Your task to perform on an android device: turn on the 12-hour format for clock Image 0: 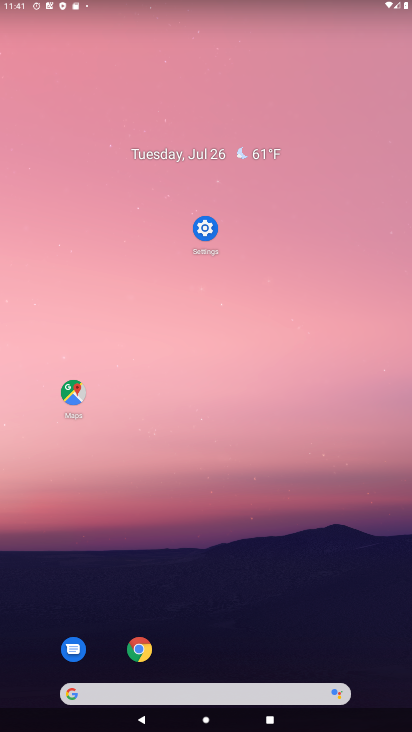
Step 0: drag from (221, 567) to (172, 150)
Your task to perform on an android device: turn on the 12-hour format for clock Image 1: 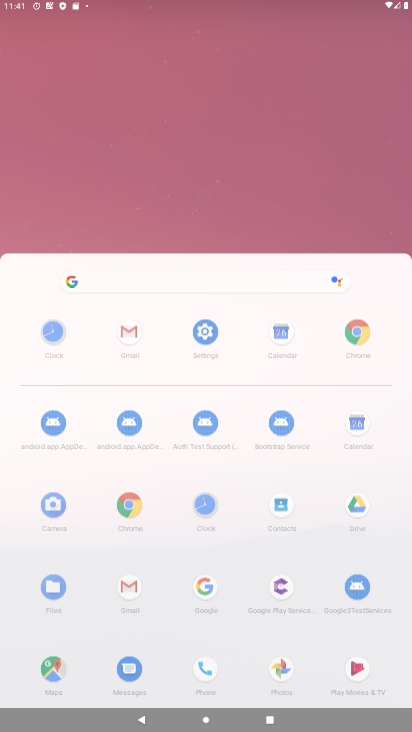
Step 1: drag from (150, 537) to (134, 192)
Your task to perform on an android device: turn on the 12-hour format for clock Image 2: 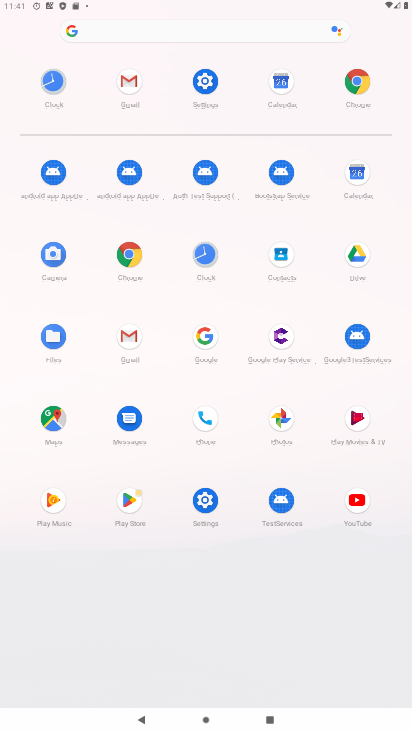
Step 2: click (206, 252)
Your task to perform on an android device: turn on the 12-hour format for clock Image 3: 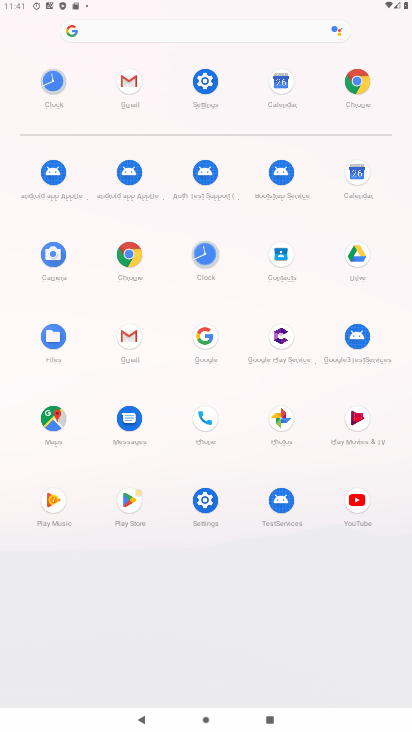
Step 3: click (202, 248)
Your task to perform on an android device: turn on the 12-hour format for clock Image 4: 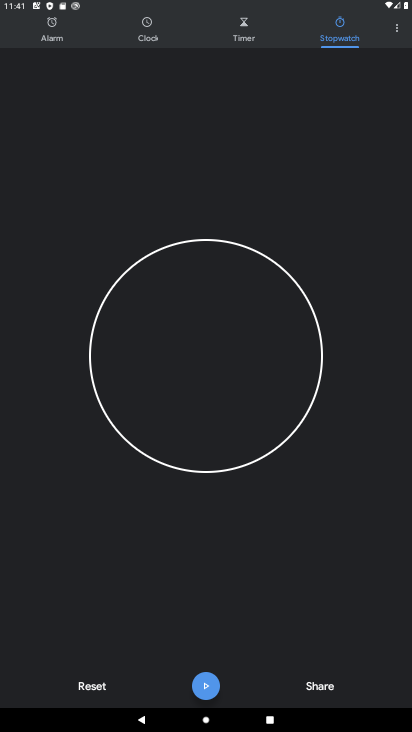
Step 4: drag from (391, 30) to (323, 53)
Your task to perform on an android device: turn on the 12-hour format for clock Image 5: 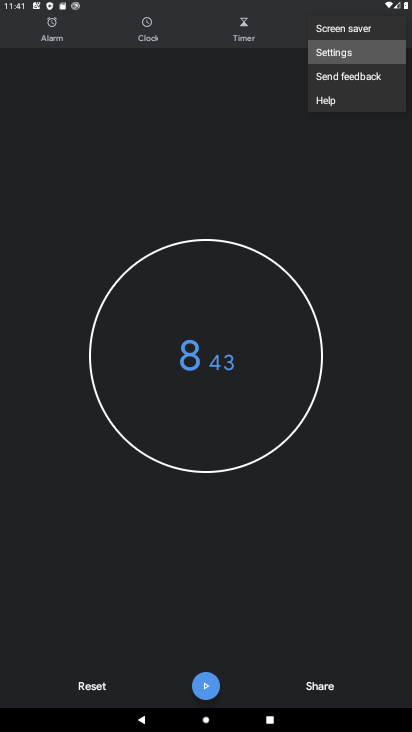
Step 5: click (324, 51)
Your task to perform on an android device: turn on the 12-hour format for clock Image 6: 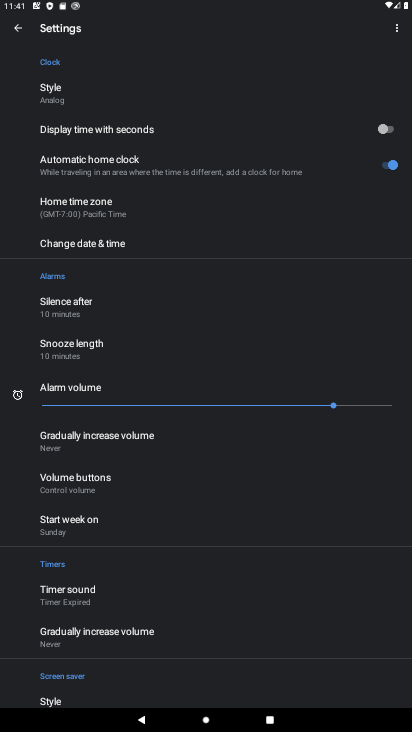
Step 6: drag from (151, 602) to (174, 151)
Your task to perform on an android device: turn on the 12-hour format for clock Image 7: 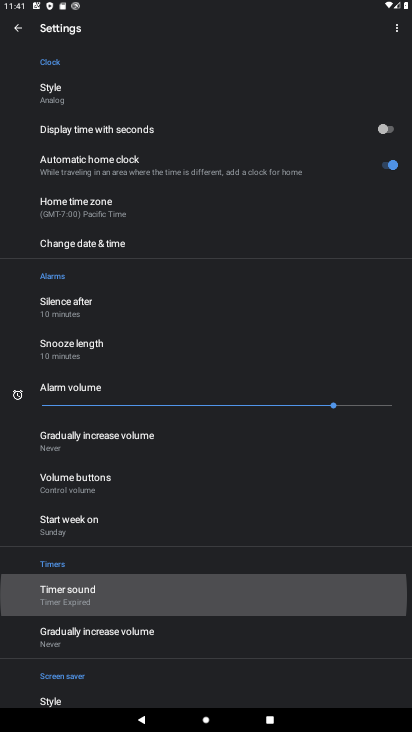
Step 7: drag from (204, 725) to (207, 226)
Your task to perform on an android device: turn on the 12-hour format for clock Image 8: 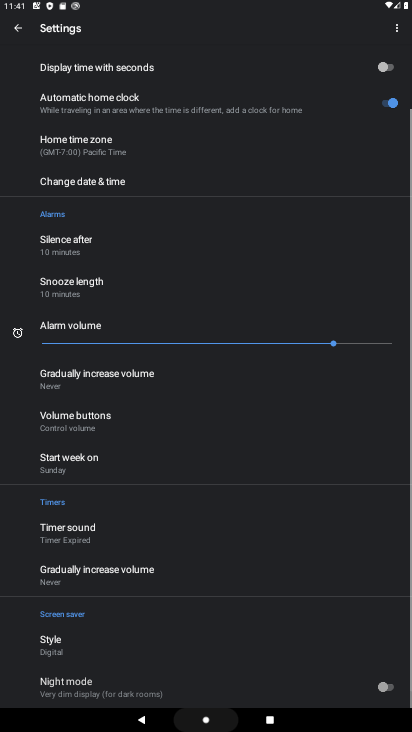
Step 8: drag from (205, 541) to (217, 201)
Your task to perform on an android device: turn on the 12-hour format for clock Image 9: 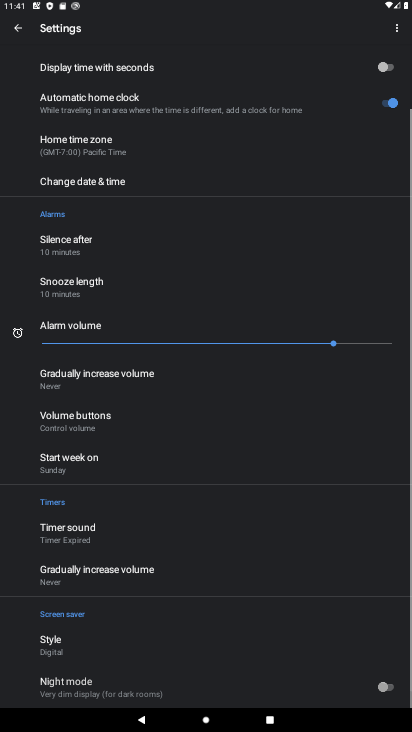
Step 9: drag from (266, 423) to (274, 269)
Your task to perform on an android device: turn on the 12-hour format for clock Image 10: 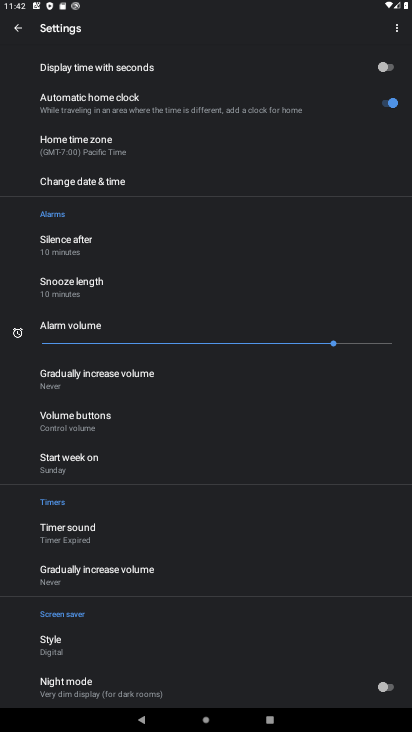
Step 10: press back button
Your task to perform on an android device: turn on the 12-hour format for clock Image 11: 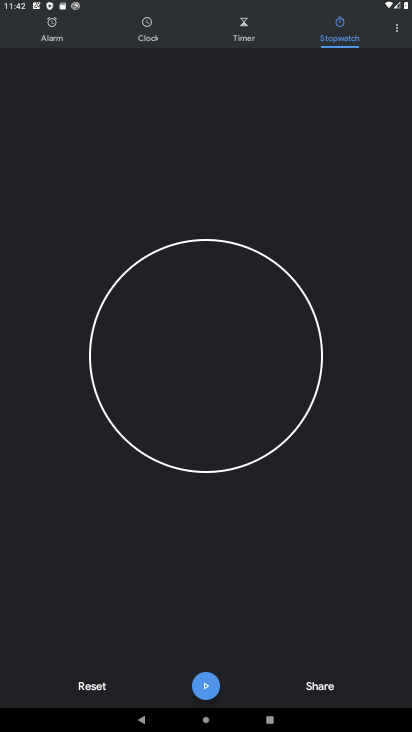
Step 11: click (409, 27)
Your task to perform on an android device: turn on the 12-hour format for clock Image 12: 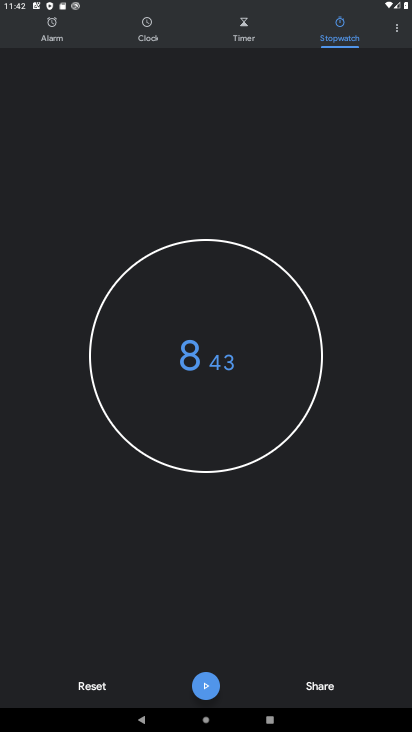
Step 12: click (397, 32)
Your task to perform on an android device: turn on the 12-hour format for clock Image 13: 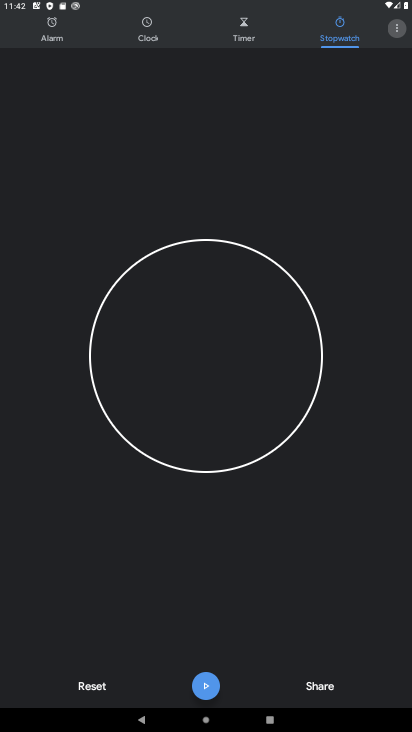
Step 13: click (398, 27)
Your task to perform on an android device: turn on the 12-hour format for clock Image 14: 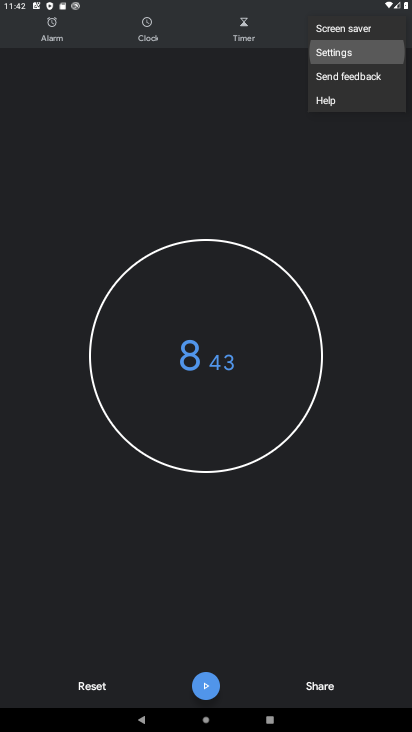
Step 14: click (398, 31)
Your task to perform on an android device: turn on the 12-hour format for clock Image 15: 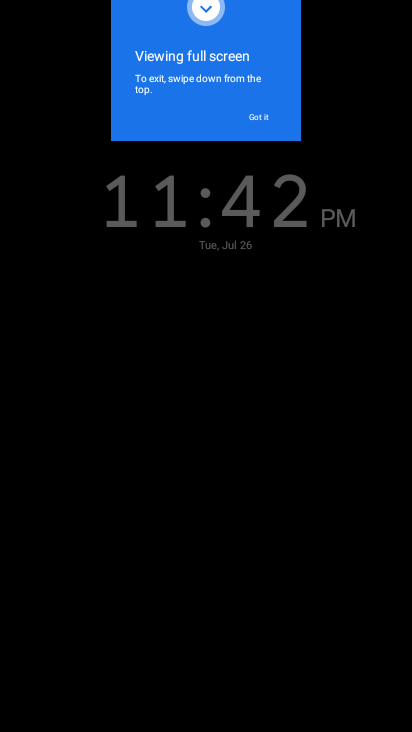
Step 15: press back button
Your task to perform on an android device: turn on the 12-hour format for clock Image 16: 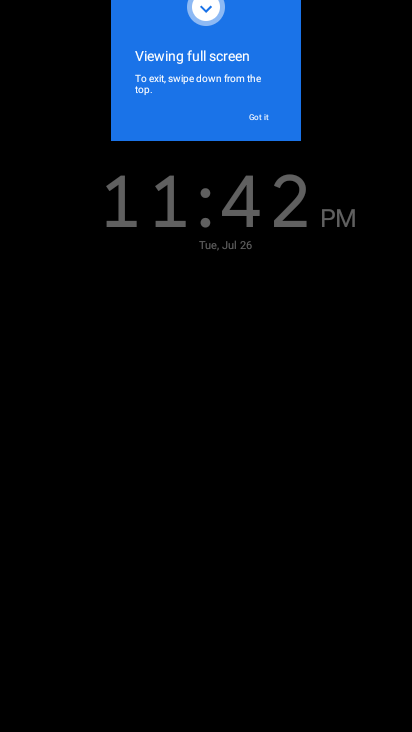
Step 16: press back button
Your task to perform on an android device: turn on the 12-hour format for clock Image 17: 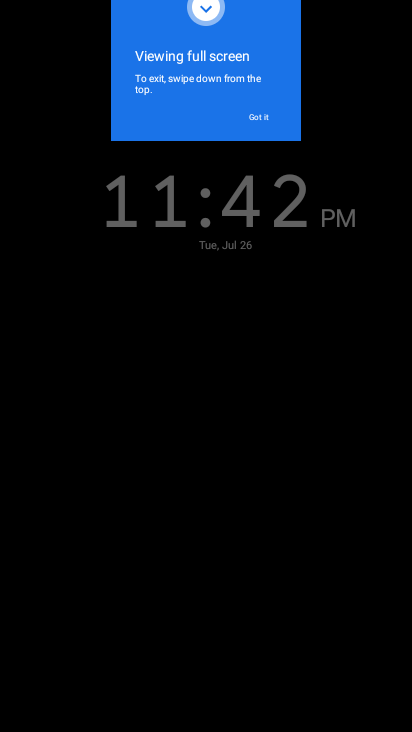
Step 17: click (263, 123)
Your task to perform on an android device: turn on the 12-hour format for clock Image 18: 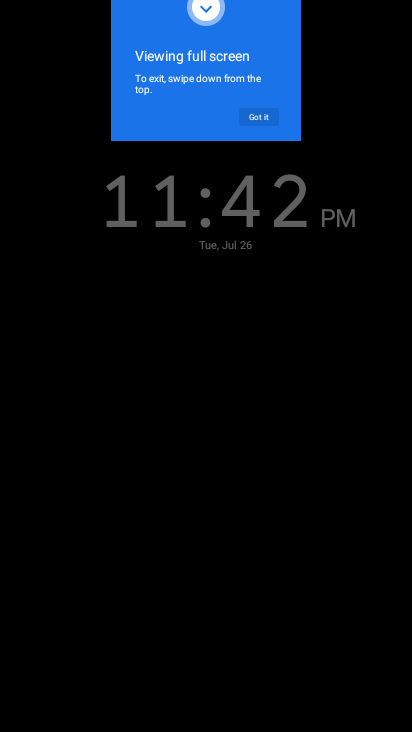
Step 18: click (264, 131)
Your task to perform on an android device: turn on the 12-hour format for clock Image 19: 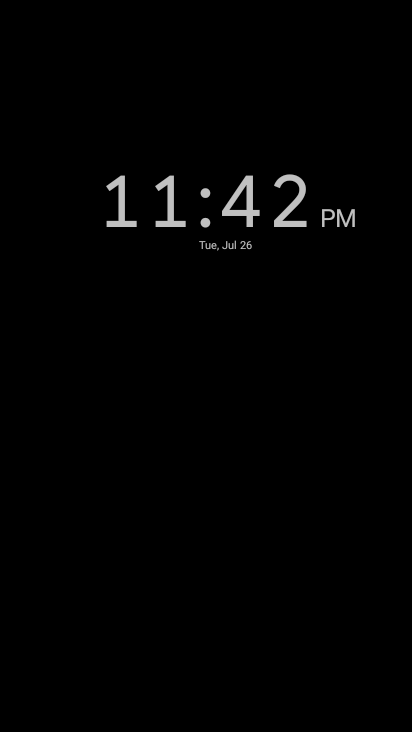
Step 19: click (263, 132)
Your task to perform on an android device: turn on the 12-hour format for clock Image 20: 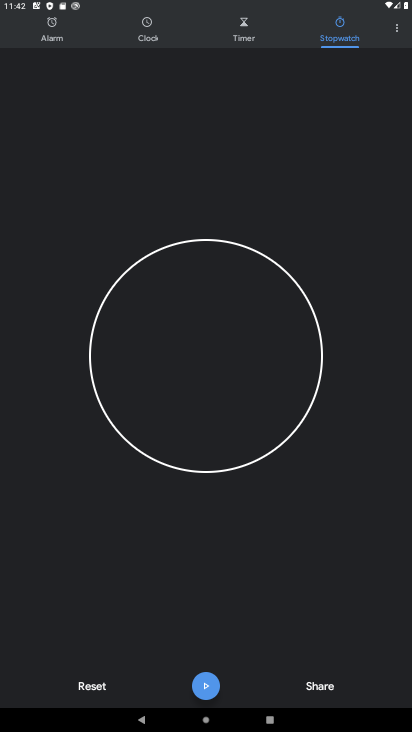
Step 20: click (399, 24)
Your task to perform on an android device: turn on the 12-hour format for clock Image 21: 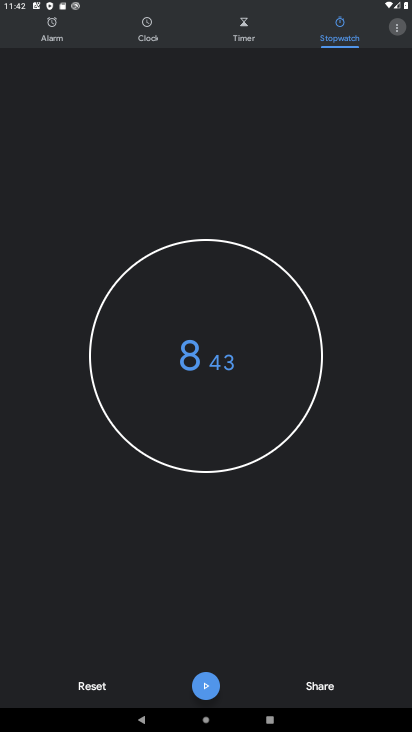
Step 21: click (402, 27)
Your task to perform on an android device: turn on the 12-hour format for clock Image 22: 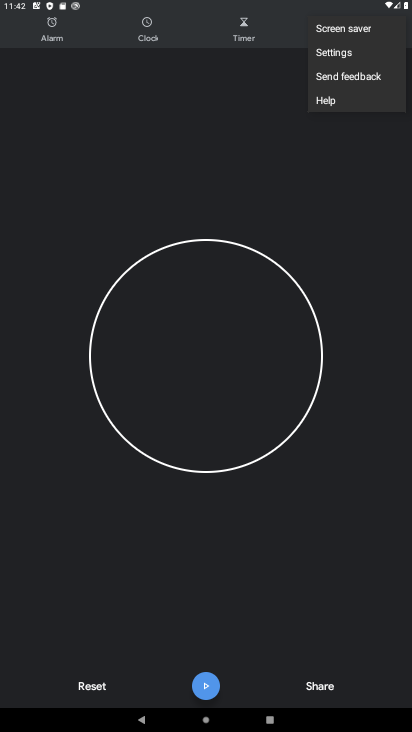
Step 22: click (353, 52)
Your task to perform on an android device: turn on the 12-hour format for clock Image 23: 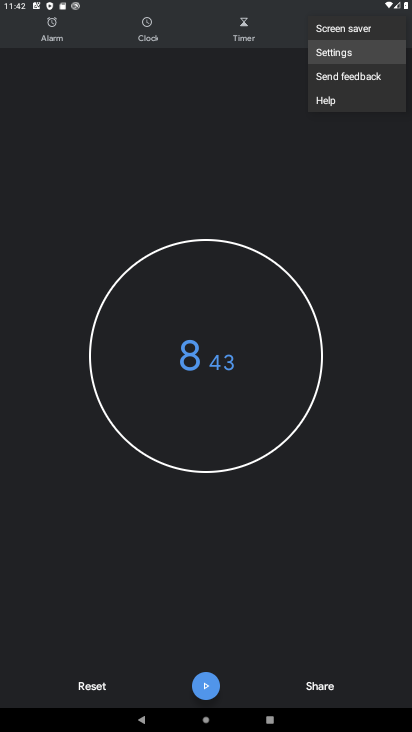
Step 23: click (344, 61)
Your task to perform on an android device: turn on the 12-hour format for clock Image 24: 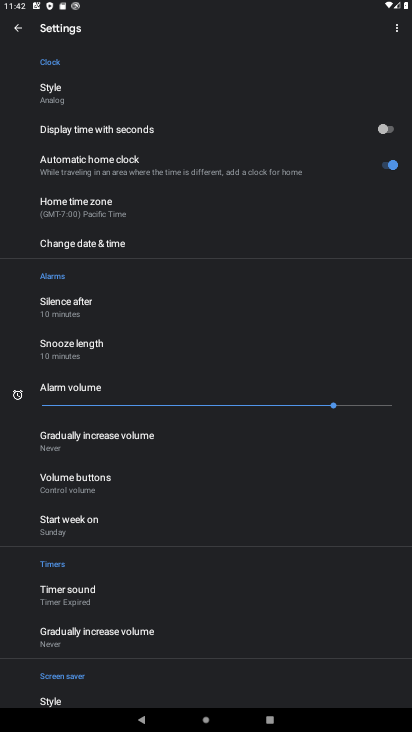
Step 24: click (89, 246)
Your task to perform on an android device: turn on the 12-hour format for clock Image 25: 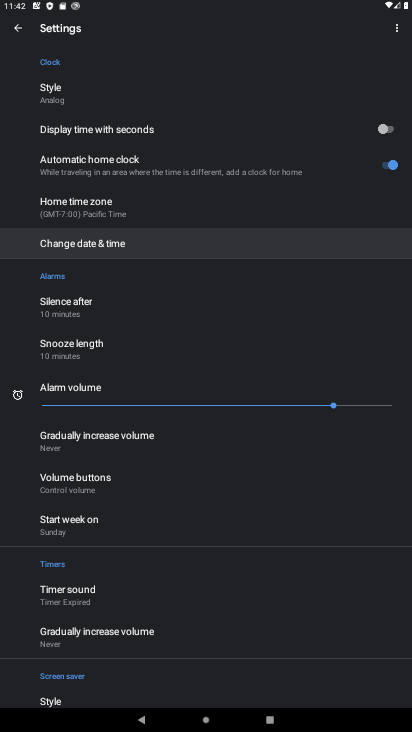
Step 25: click (89, 246)
Your task to perform on an android device: turn on the 12-hour format for clock Image 26: 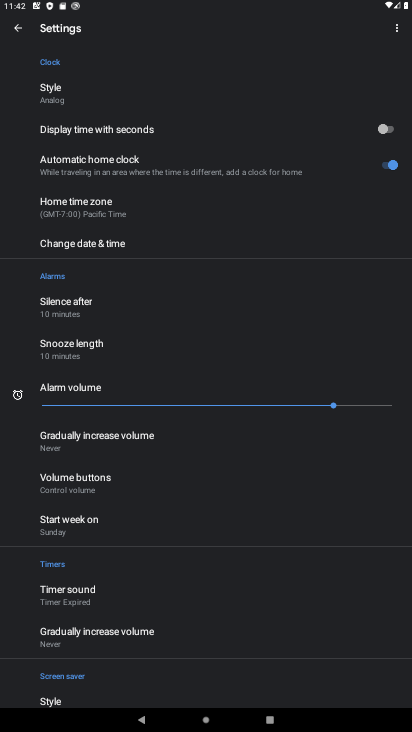
Step 26: click (89, 246)
Your task to perform on an android device: turn on the 12-hour format for clock Image 27: 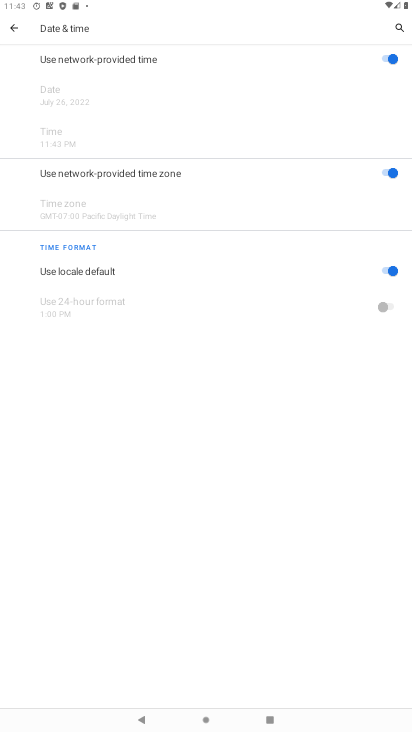
Step 27: task complete